Your task to perform on an android device: Go to network settings Image 0: 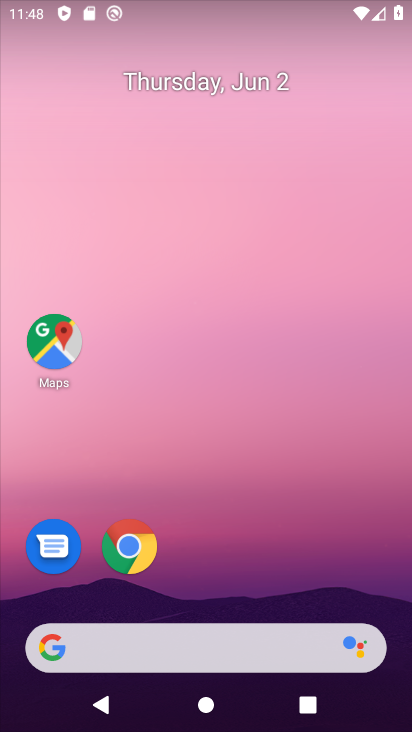
Step 0: drag from (212, 583) to (178, 260)
Your task to perform on an android device: Go to network settings Image 1: 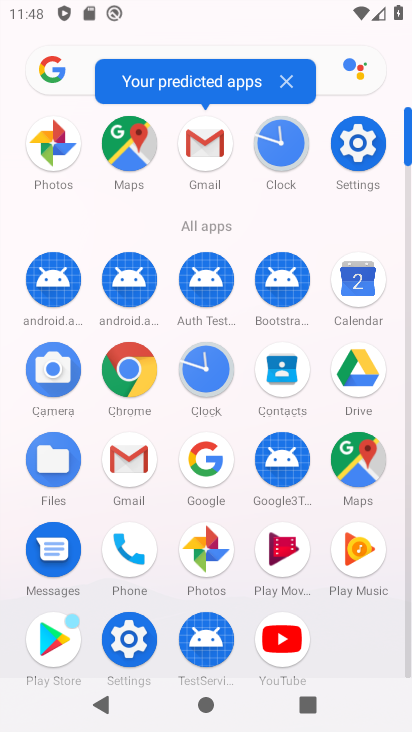
Step 1: click (366, 165)
Your task to perform on an android device: Go to network settings Image 2: 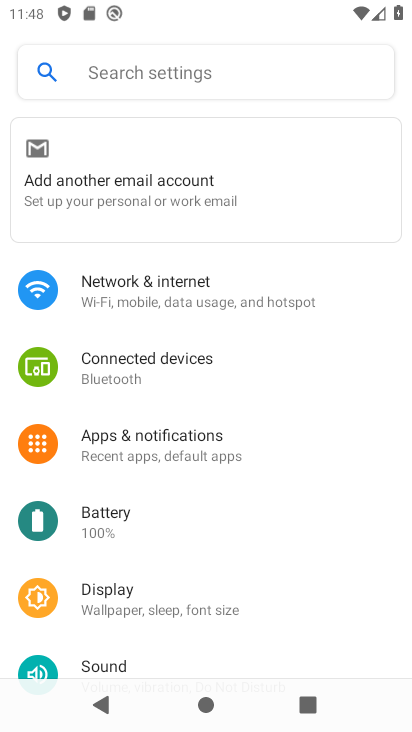
Step 2: click (200, 303)
Your task to perform on an android device: Go to network settings Image 3: 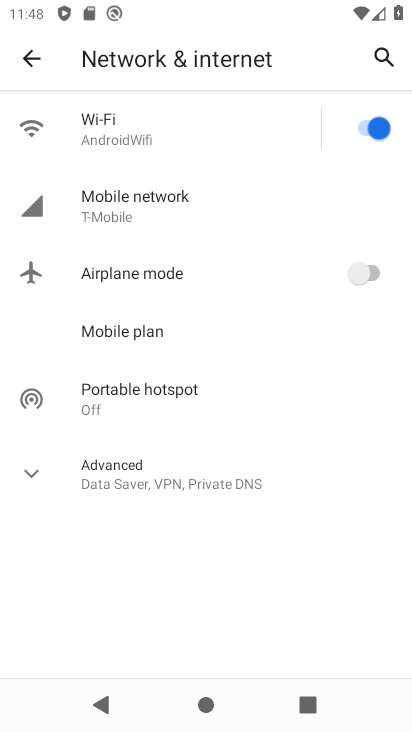
Step 3: task complete